Your task to perform on an android device: move a message to another label in the gmail app Image 0: 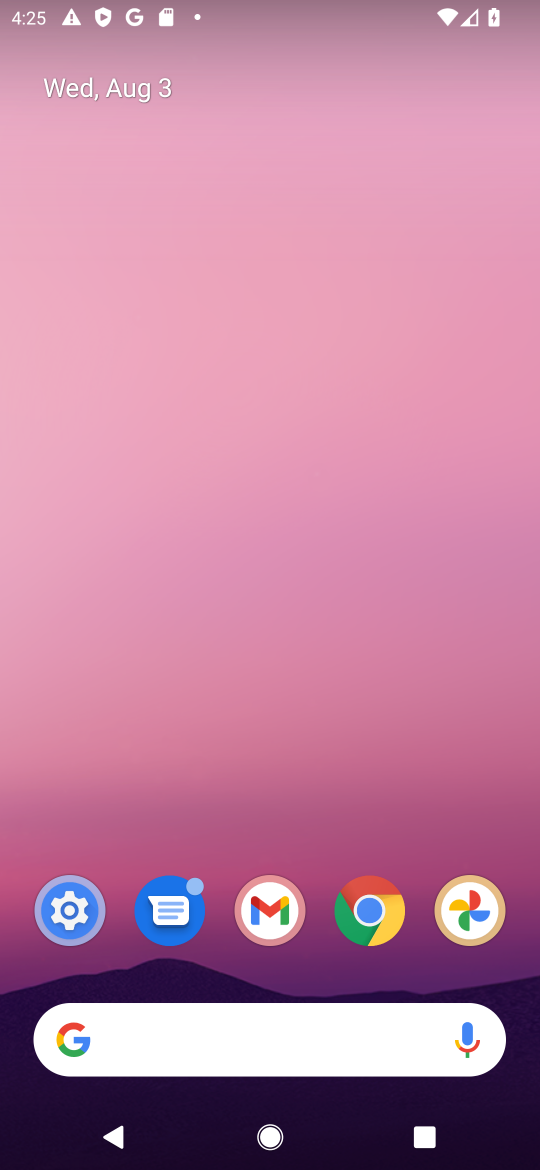
Step 0: click (284, 911)
Your task to perform on an android device: move a message to another label in the gmail app Image 1: 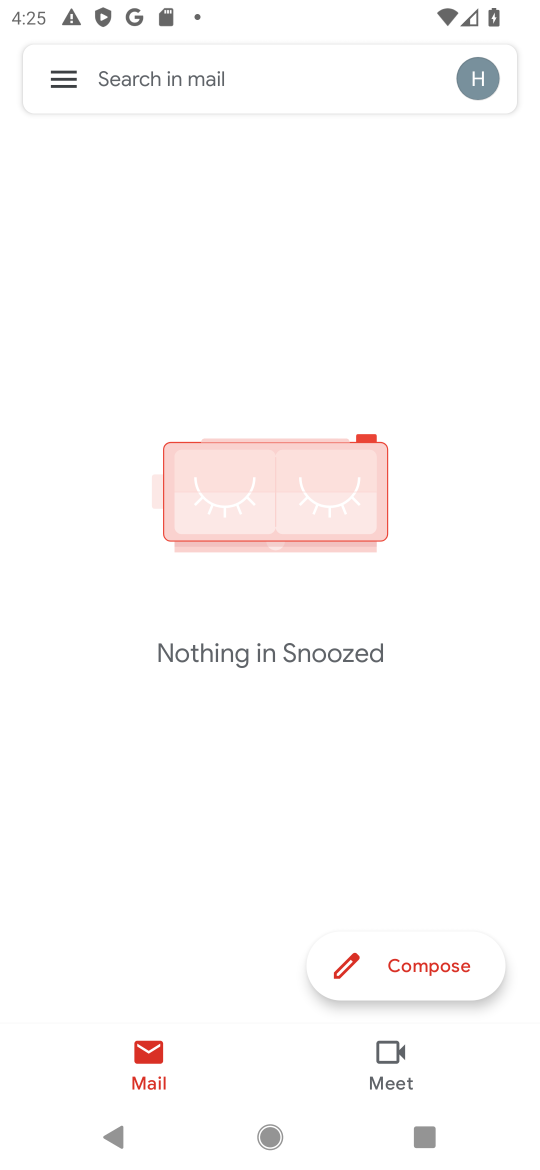
Step 1: click (40, 64)
Your task to perform on an android device: move a message to another label in the gmail app Image 2: 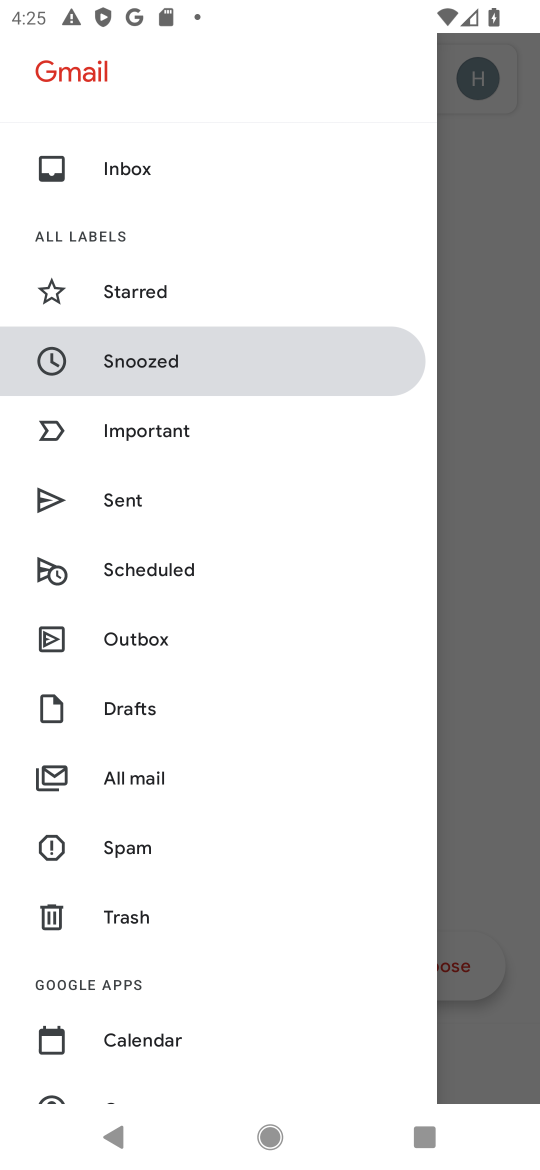
Step 2: click (154, 178)
Your task to perform on an android device: move a message to another label in the gmail app Image 3: 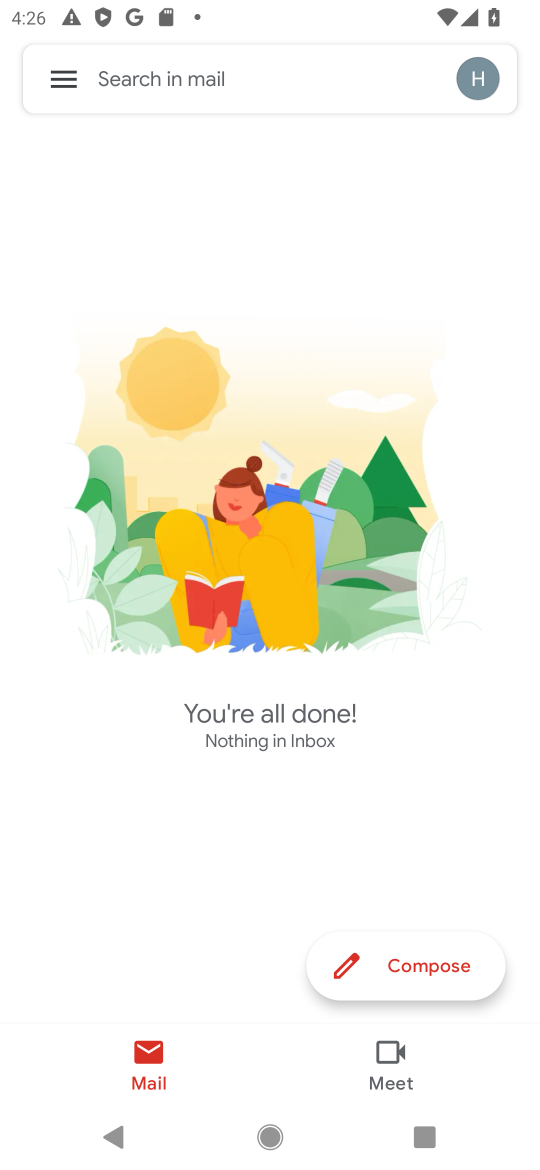
Step 3: task complete